Your task to perform on an android device: add a contact Image 0: 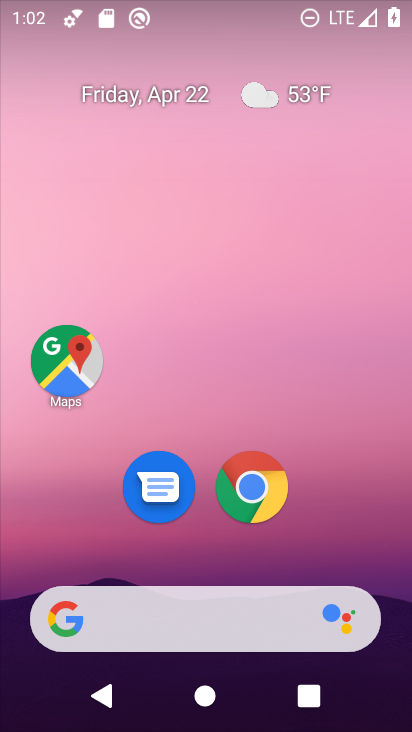
Step 0: drag from (216, 558) to (237, 59)
Your task to perform on an android device: add a contact Image 1: 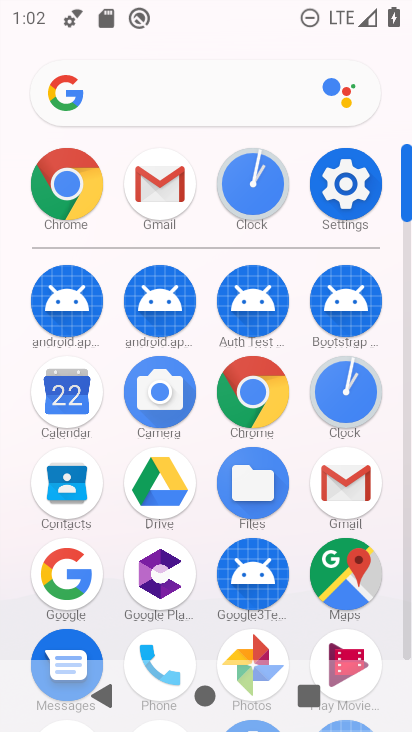
Step 1: click (63, 479)
Your task to perform on an android device: add a contact Image 2: 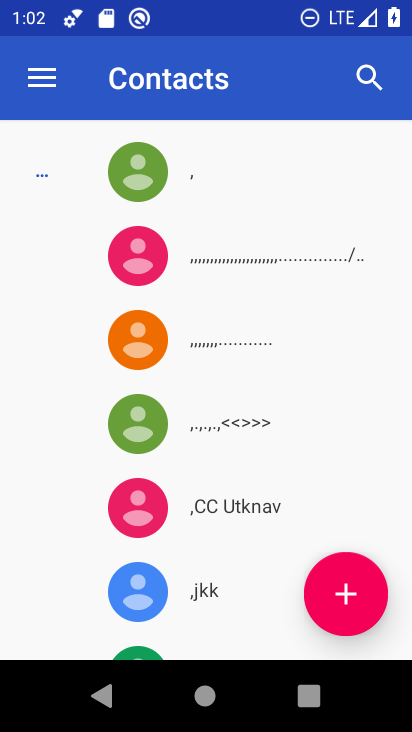
Step 2: click (367, 599)
Your task to perform on an android device: add a contact Image 3: 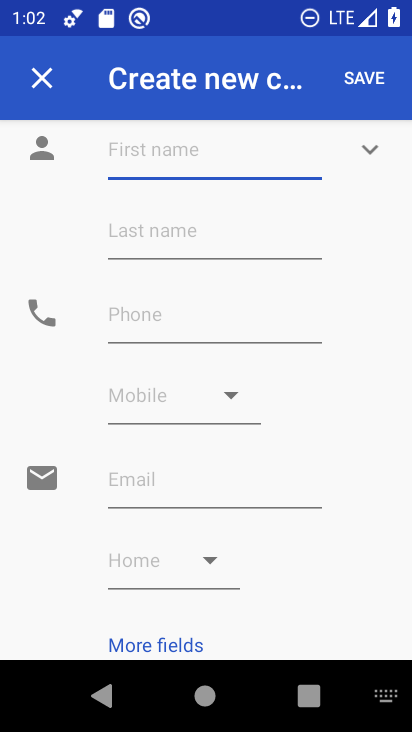
Step 3: type "ummm"
Your task to perform on an android device: add a contact Image 4: 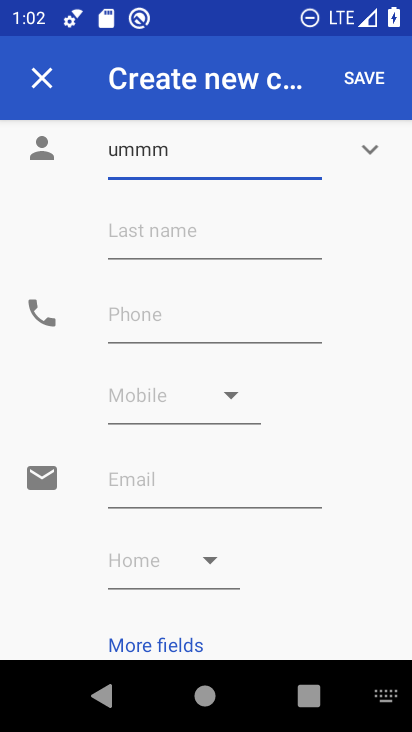
Step 4: click (220, 334)
Your task to perform on an android device: add a contact Image 5: 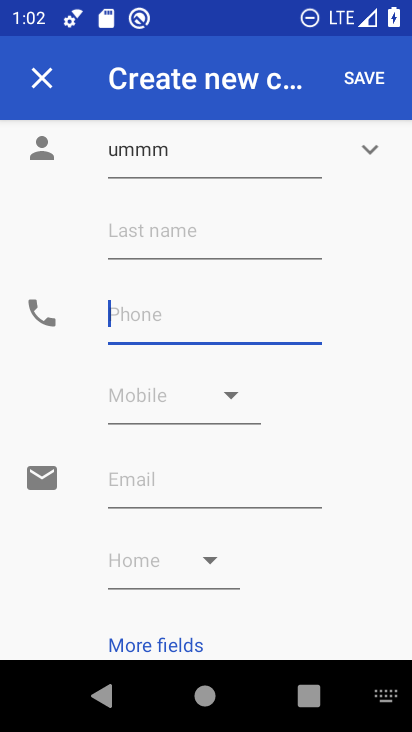
Step 5: type "98765432"
Your task to perform on an android device: add a contact Image 6: 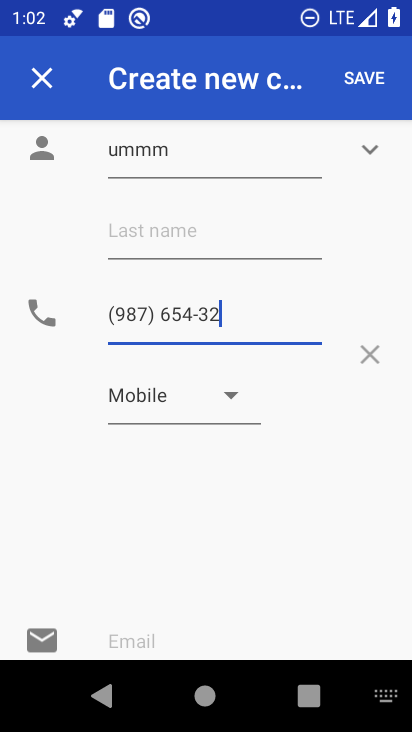
Step 6: type ""
Your task to perform on an android device: add a contact Image 7: 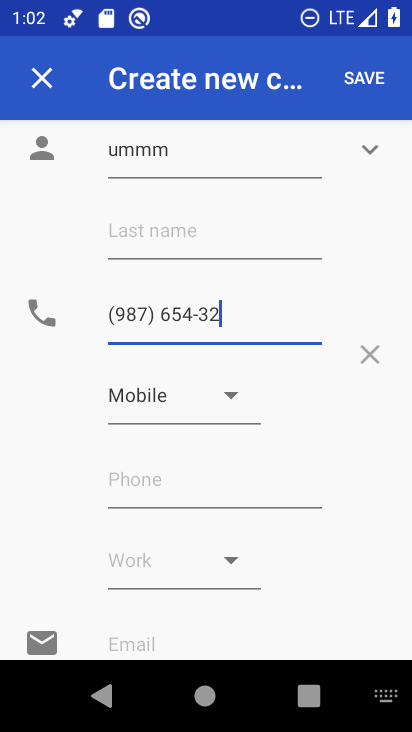
Step 7: click (358, 73)
Your task to perform on an android device: add a contact Image 8: 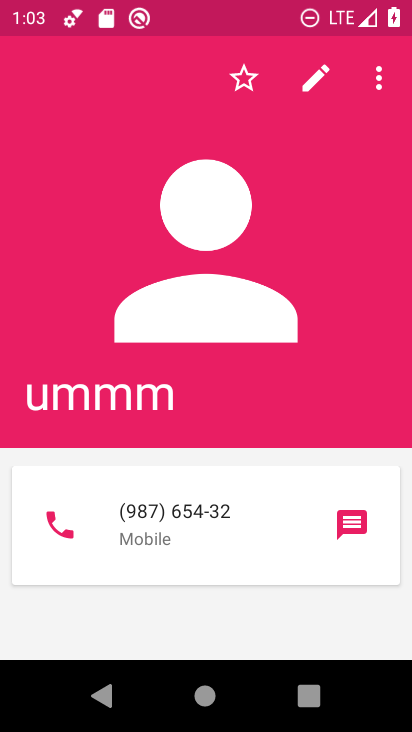
Step 8: task complete